Your task to perform on an android device: open chrome and create a bookmark for the current page Image 0: 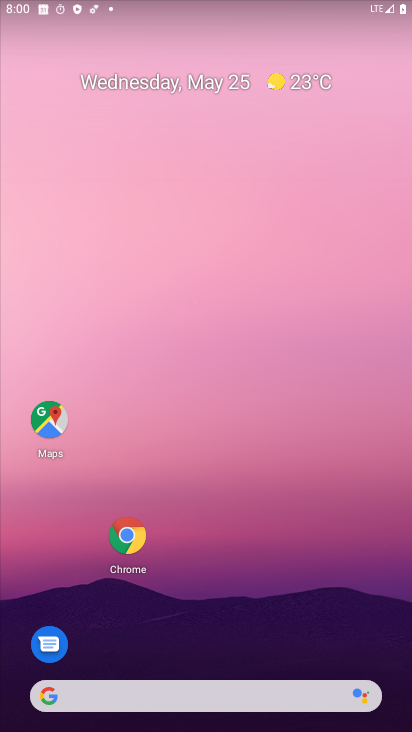
Step 0: click (102, 569)
Your task to perform on an android device: open chrome and create a bookmark for the current page Image 1: 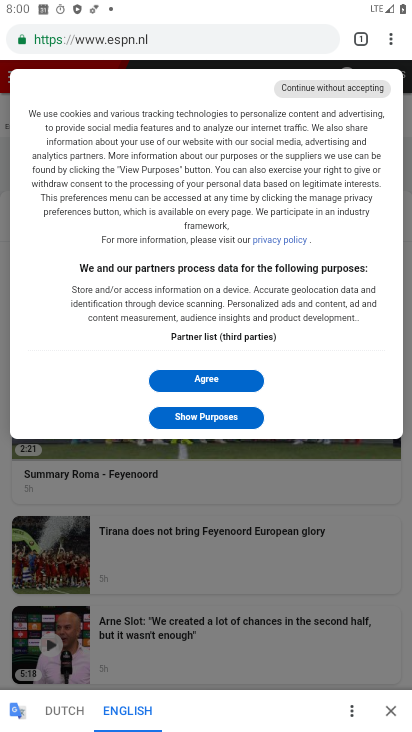
Step 1: task complete